Your task to perform on an android device: delete browsing data in the chrome app Image 0: 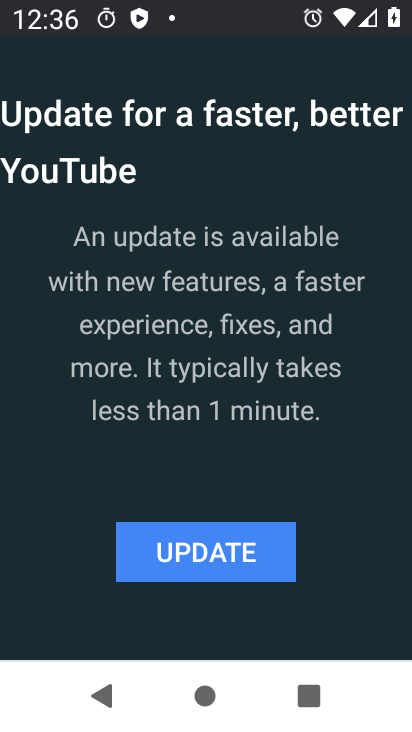
Step 0: press home button
Your task to perform on an android device: delete browsing data in the chrome app Image 1: 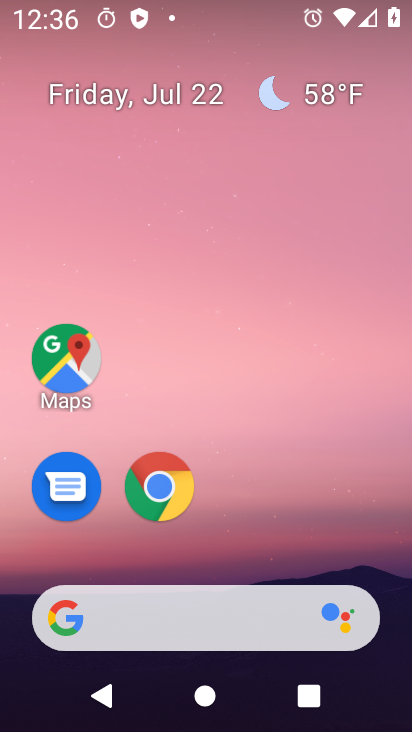
Step 1: drag from (370, 522) to (387, 103)
Your task to perform on an android device: delete browsing data in the chrome app Image 2: 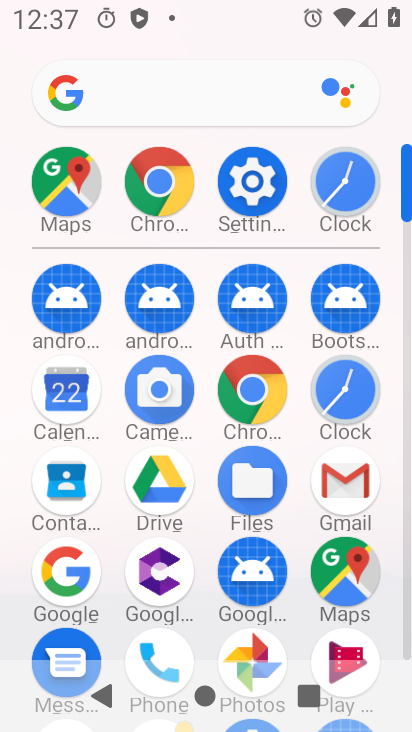
Step 2: click (250, 394)
Your task to perform on an android device: delete browsing data in the chrome app Image 3: 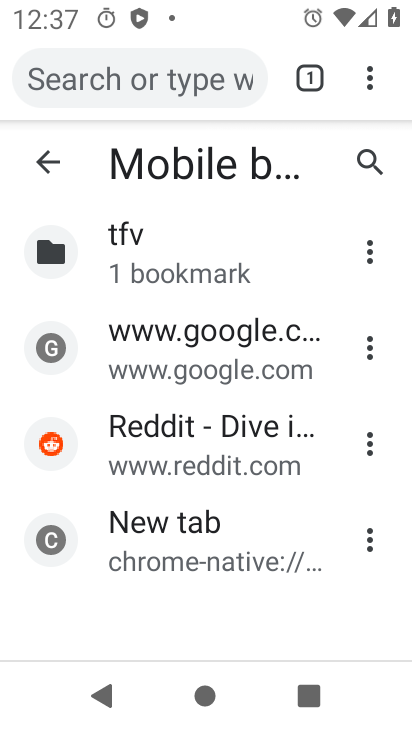
Step 3: click (367, 85)
Your task to perform on an android device: delete browsing data in the chrome app Image 4: 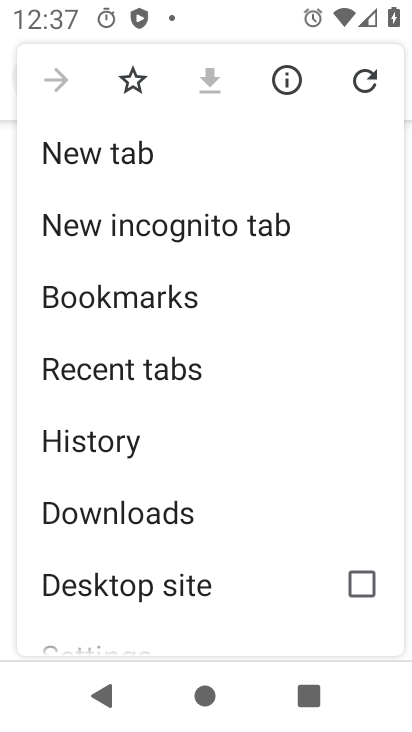
Step 4: drag from (332, 400) to (340, 303)
Your task to perform on an android device: delete browsing data in the chrome app Image 5: 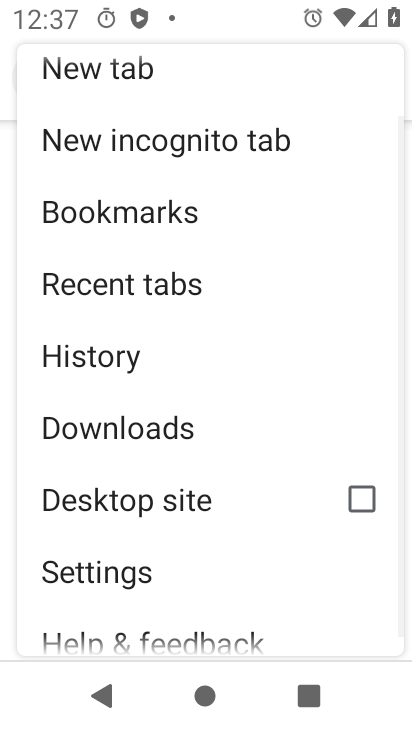
Step 5: drag from (294, 408) to (294, 303)
Your task to perform on an android device: delete browsing data in the chrome app Image 6: 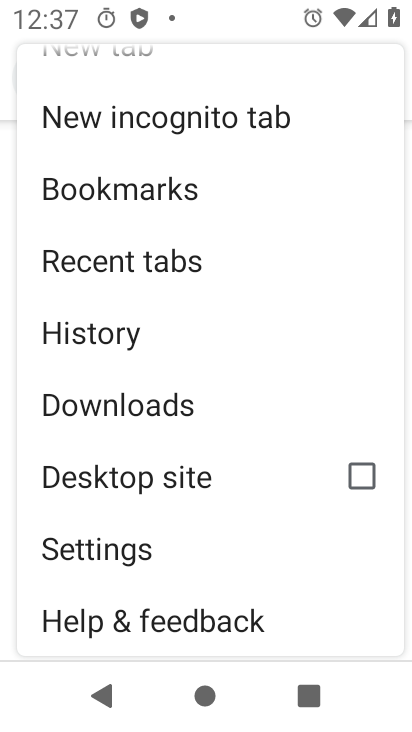
Step 6: click (153, 557)
Your task to perform on an android device: delete browsing data in the chrome app Image 7: 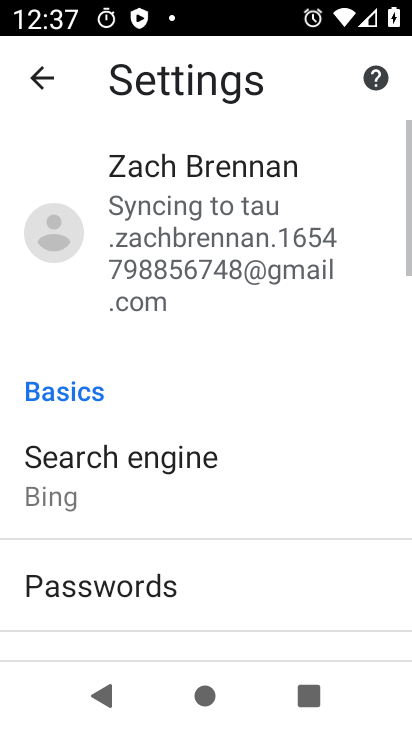
Step 7: drag from (264, 528) to (293, 347)
Your task to perform on an android device: delete browsing data in the chrome app Image 8: 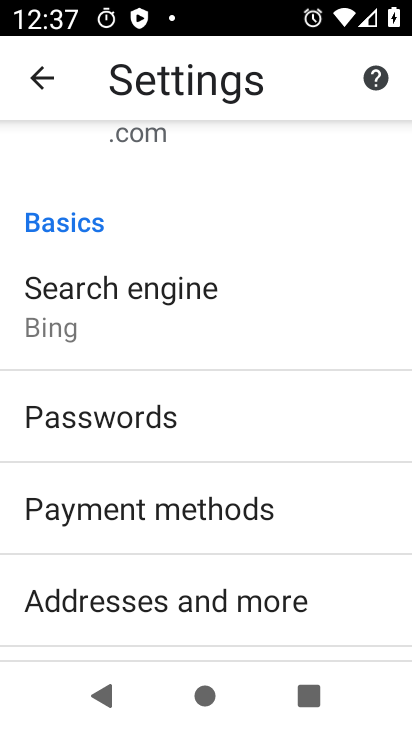
Step 8: drag from (307, 519) to (312, 424)
Your task to perform on an android device: delete browsing data in the chrome app Image 9: 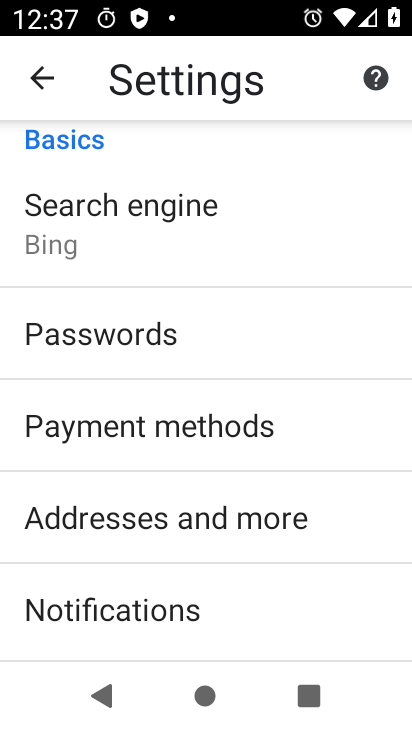
Step 9: drag from (323, 565) to (340, 470)
Your task to perform on an android device: delete browsing data in the chrome app Image 10: 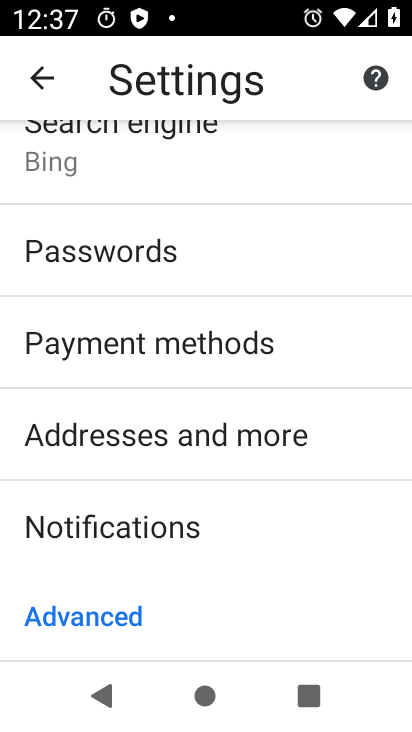
Step 10: drag from (347, 552) to (349, 500)
Your task to perform on an android device: delete browsing data in the chrome app Image 11: 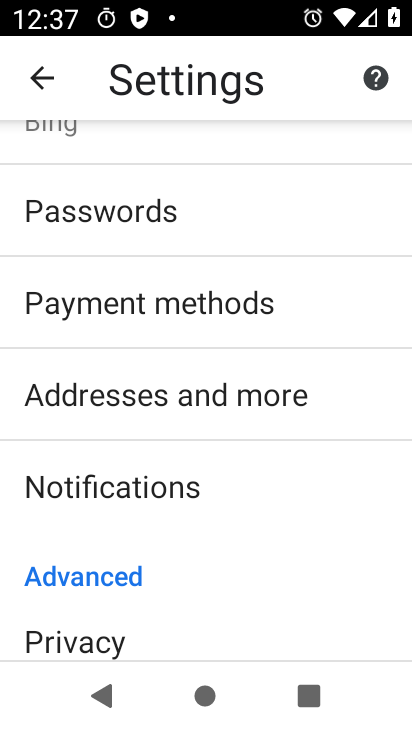
Step 11: drag from (336, 558) to (339, 416)
Your task to perform on an android device: delete browsing data in the chrome app Image 12: 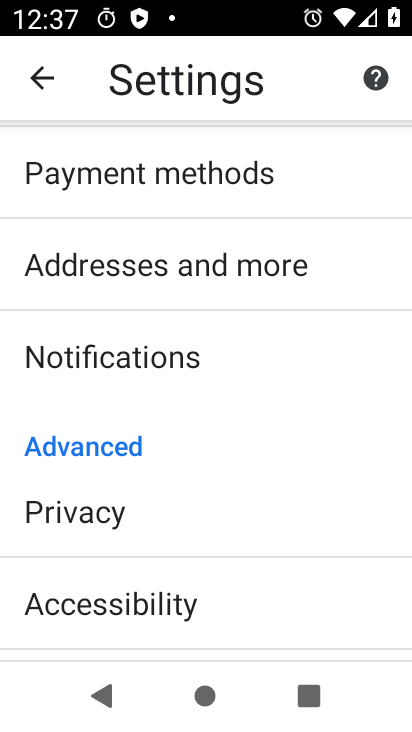
Step 12: click (311, 538)
Your task to perform on an android device: delete browsing data in the chrome app Image 13: 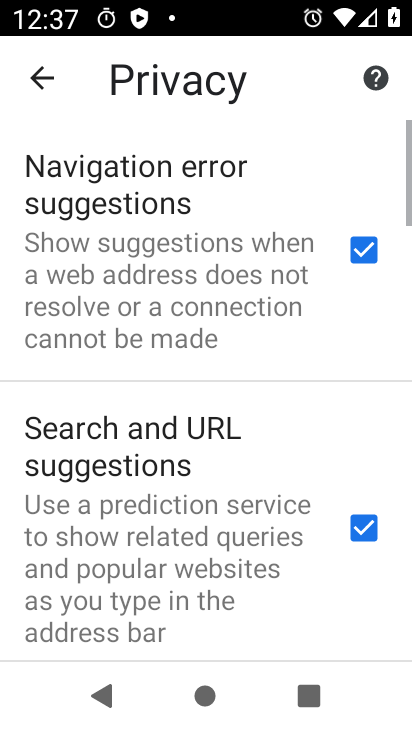
Step 13: drag from (311, 538) to (308, 449)
Your task to perform on an android device: delete browsing data in the chrome app Image 14: 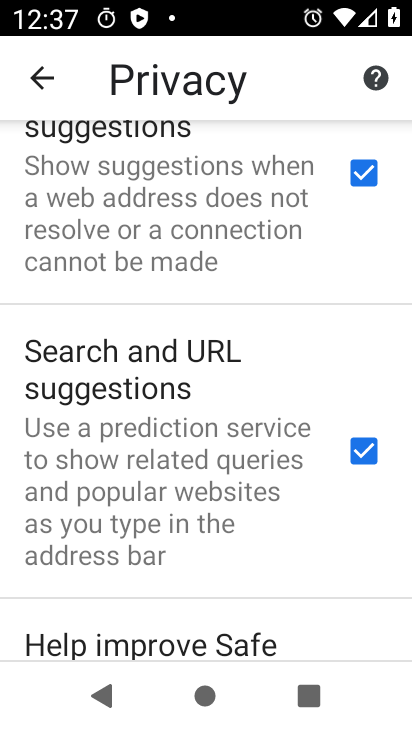
Step 14: drag from (285, 550) to (294, 432)
Your task to perform on an android device: delete browsing data in the chrome app Image 15: 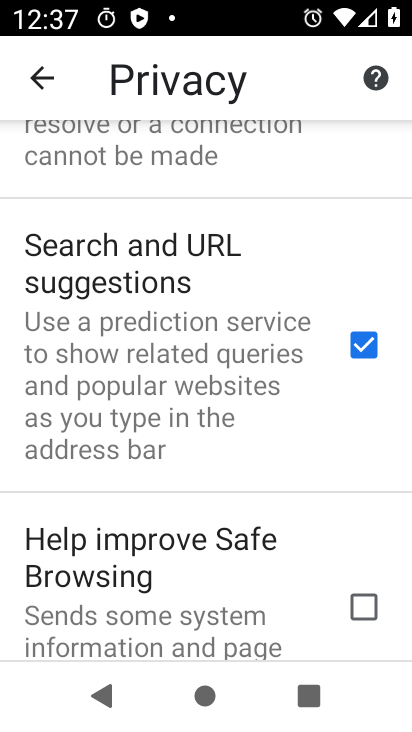
Step 15: drag from (297, 573) to (313, 450)
Your task to perform on an android device: delete browsing data in the chrome app Image 16: 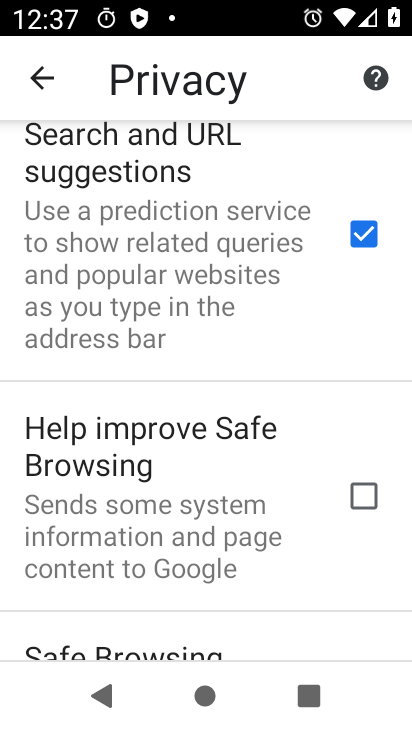
Step 16: drag from (284, 592) to (282, 444)
Your task to perform on an android device: delete browsing data in the chrome app Image 17: 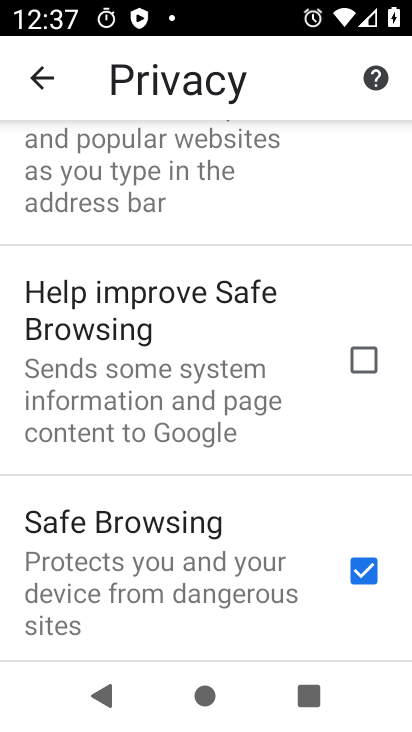
Step 17: drag from (271, 591) to (271, 424)
Your task to perform on an android device: delete browsing data in the chrome app Image 18: 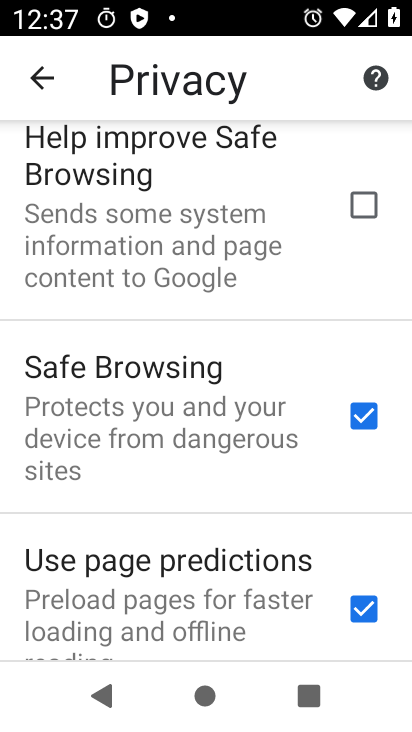
Step 18: drag from (267, 591) to (266, 411)
Your task to perform on an android device: delete browsing data in the chrome app Image 19: 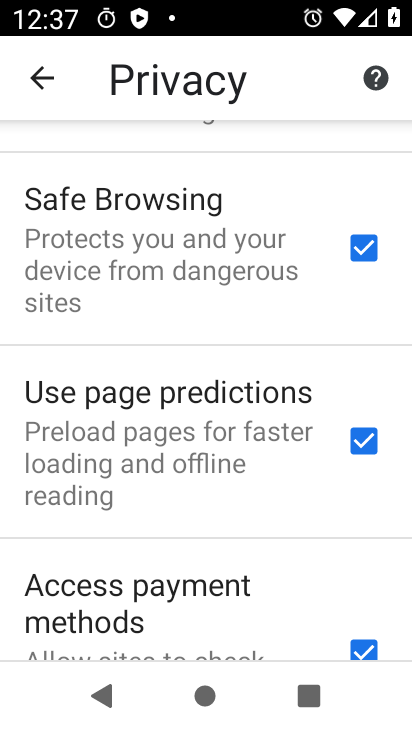
Step 19: drag from (279, 598) to (290, 430)
Your task to perform on an android device: delete browsing data in the chrome app Image 20: 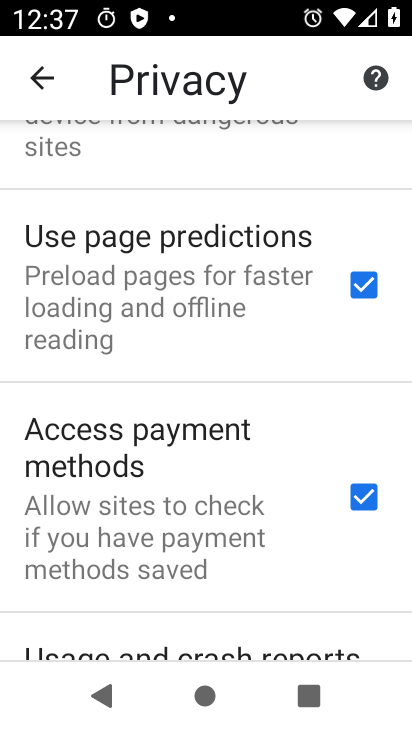
Step 20: drag from (296, 569) to (289, 363)
Your task to perform on an android device: delete browsing data in the chrome app Image 21: 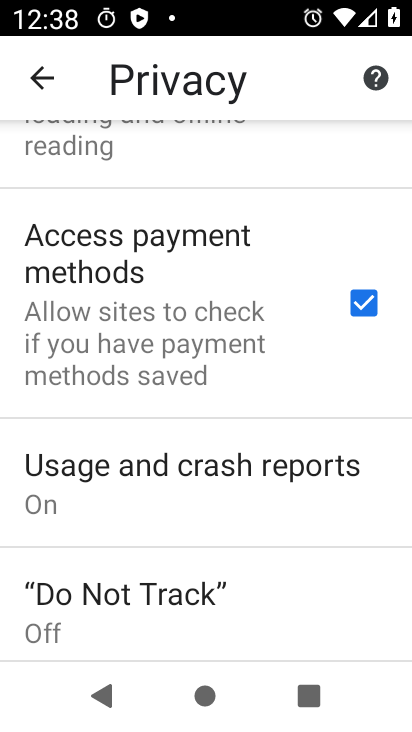
Step 21: drag from (275, 567) to (278, 375)
Your task to perform on an android device: delete browsing data in the chrome app Image 22: 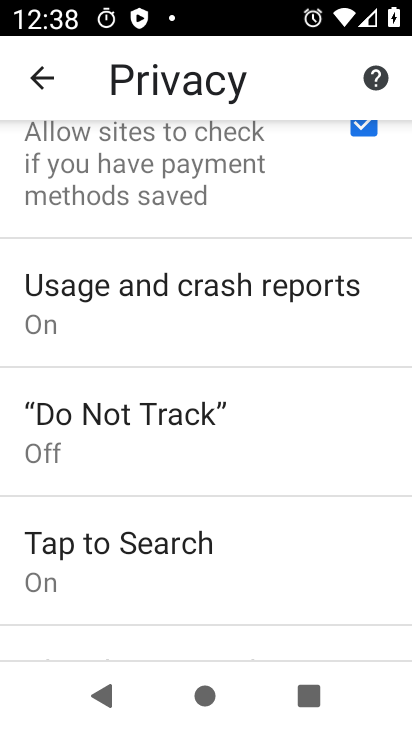
Step 22: drag from (279, 585) to (285, 435)
Your task to perform on an android device: delete browsing data in the chrome app Image 23: 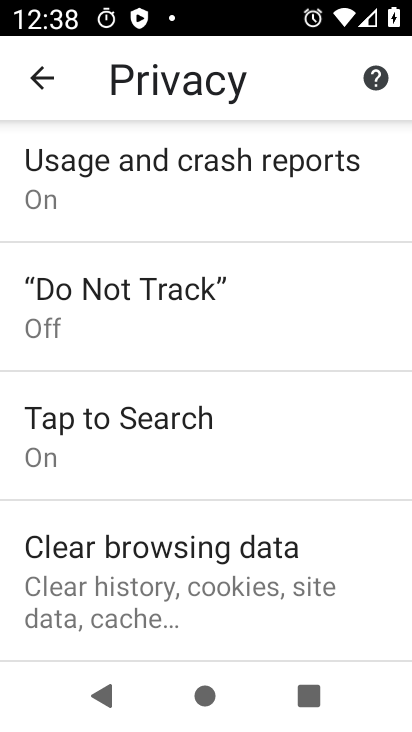
Step 23: click (283, 555)
Your task to perform on an android device: delete browsing data in the chrome app Image 24: 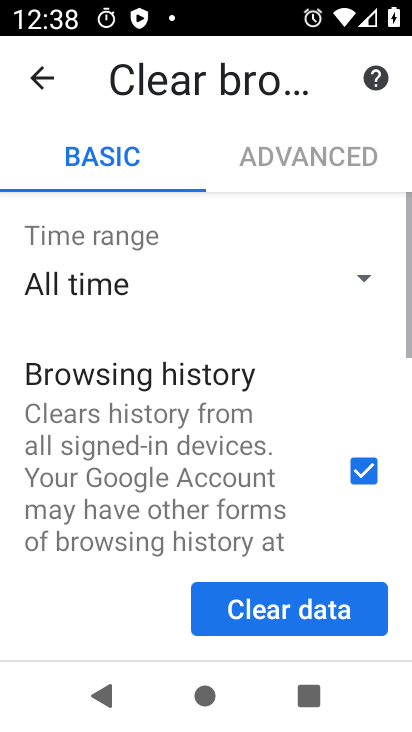
Step 24: click (289, 593)
Your task to perform on an android device: delete browsing data in the chrome app Image 25: 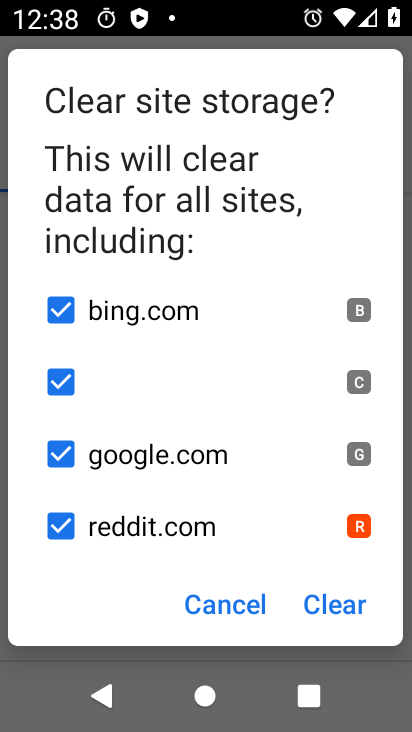
Step 25: click (320, 606)
Your task to perform on an android device: delete browsing data in the chrome app Image 26: 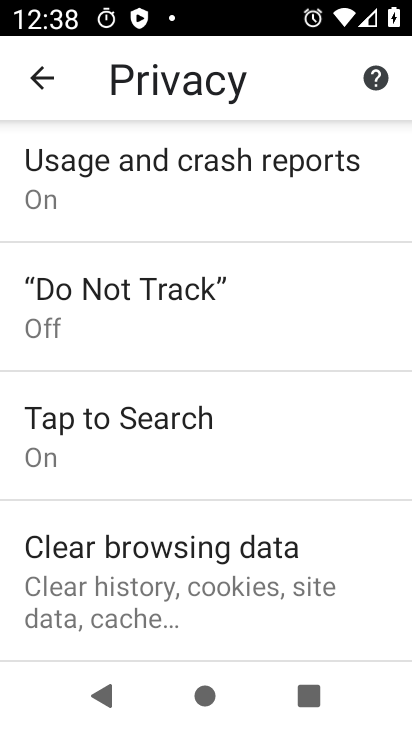
Step 26: task complete